Your task to perform on an android device: find photos in the google photos app Image 0: 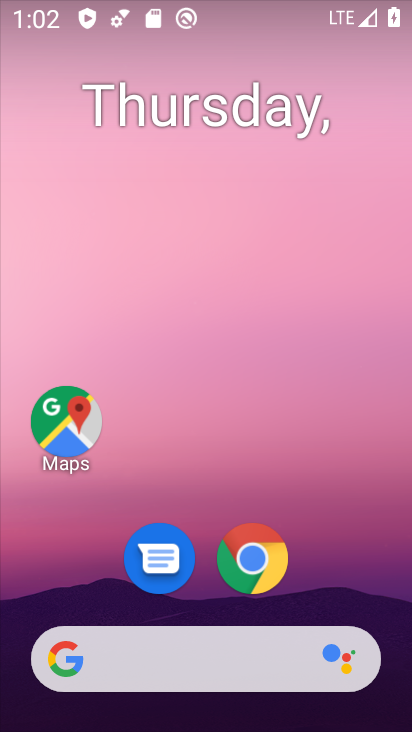
Step 0: drag from (404, 506) to (368, 168)
Your task to perform on an android device: find photos in the google photos app Image 1: 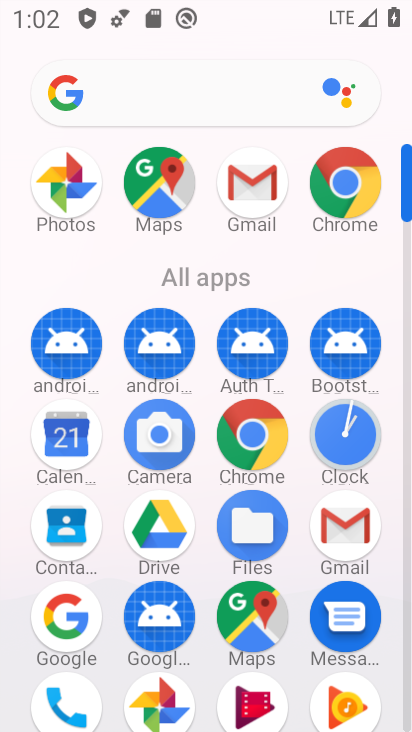
Step 1: click (137, 716)
Your task to perform on an android device: find photos in the google photos app Image 2: 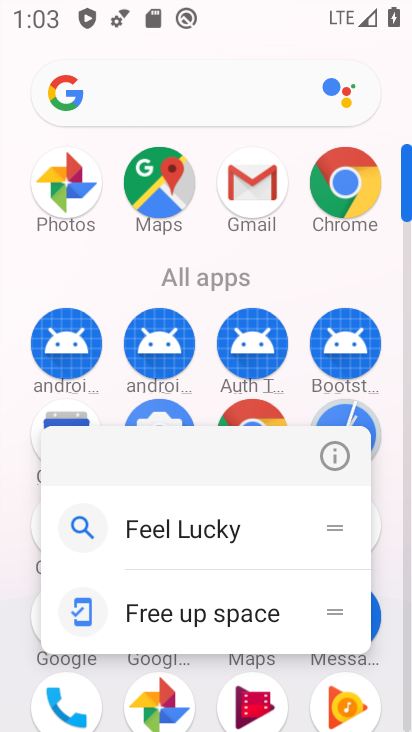
Step 2: click (159, 691)
Your task to perform on an android device: find photos in the google photos app Image 3: 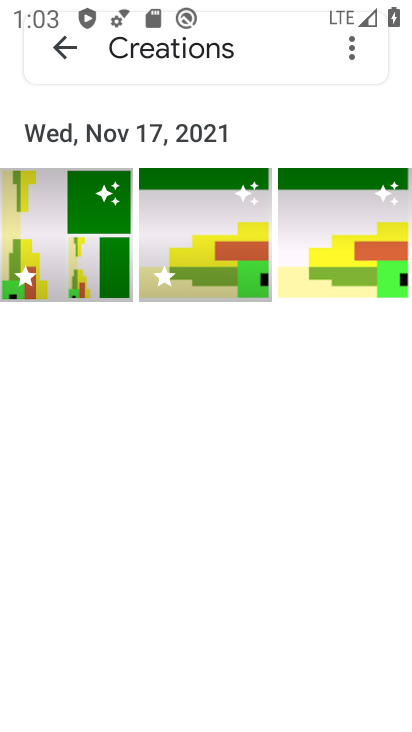
Step 3: task complete